Your task to perform on an android device: allow notifications from all sites in the chrome app Image 0: 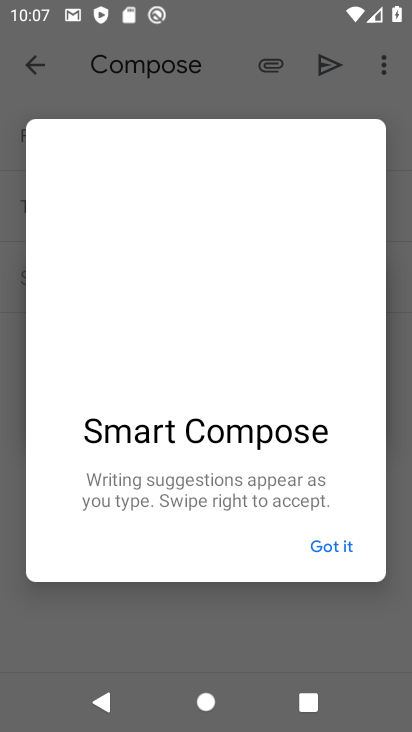
Step 0: press back button
Your task to perform on an android device: allow notifications from all sites in the chrome app Image 1: 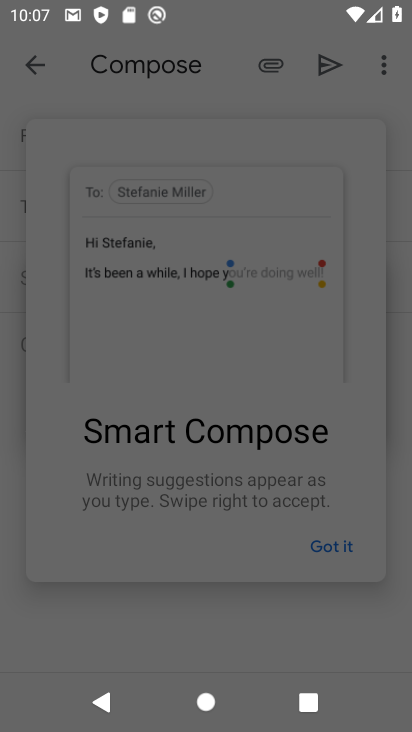
Step 1: press back button
Your task to perform on an android device: allow notifications from all sites in the chrome app Image 2: 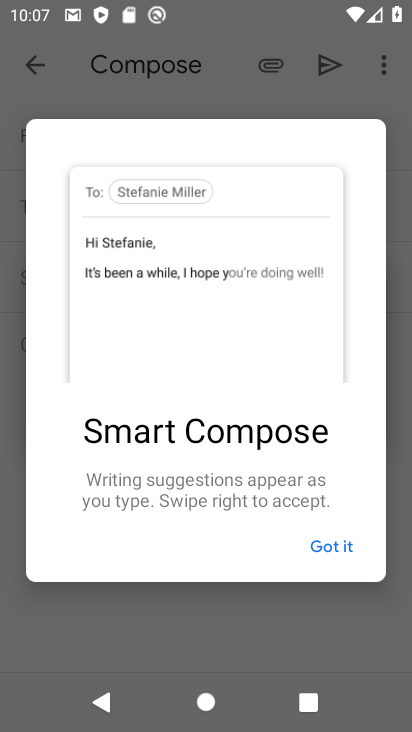
Step 2: press home button
Your task to perform on an android device: allow notifications from all sites in the chrome app Image 3: 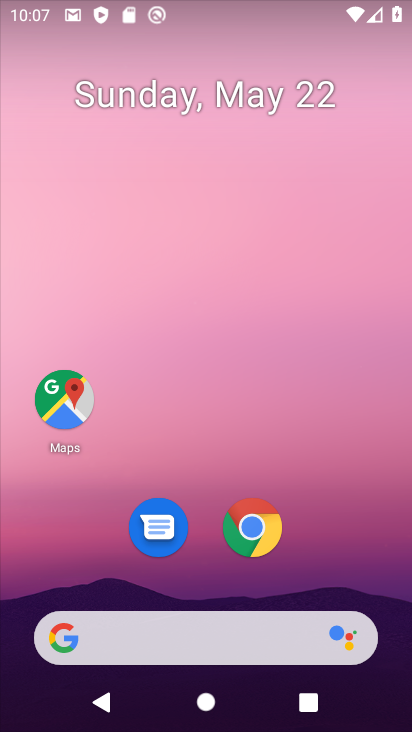
Step 3: drag from (345, 550) to (227, 47)
Your task to perform on an android device: allow notifications from all sites in the chrome app Image 4: 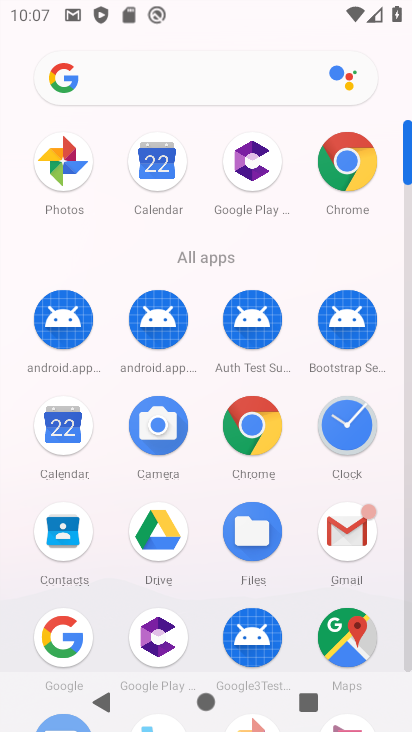
Step 4: drag from (13, 587) to (23, 281)
Your task to perform on an android device: allow notifications from all sites in the chrome app Image 5: 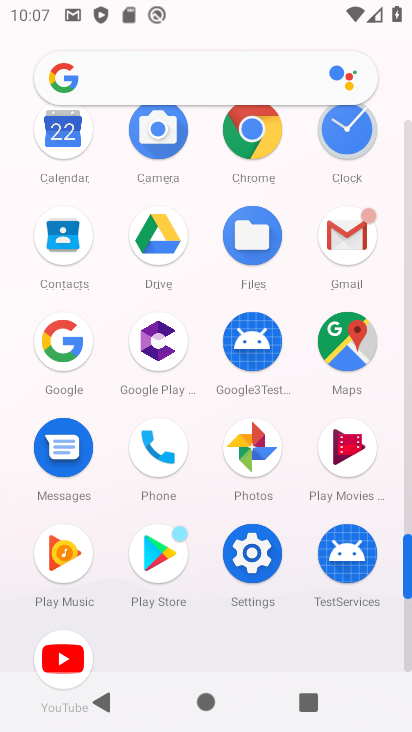
Step 5: click (251, 550)
Your task to perform on an android device: allow notifications from all sites in the chrome app Image 6: 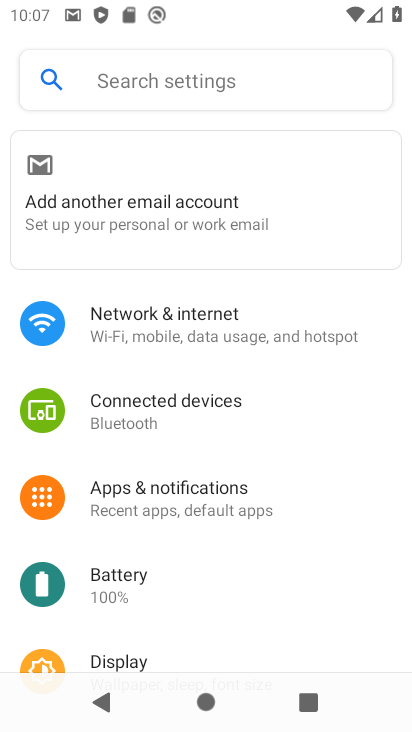
Step 6: click (133, 495)
Your task to perform on an android device: allow notifications from all sites in the chrome app Image 7: 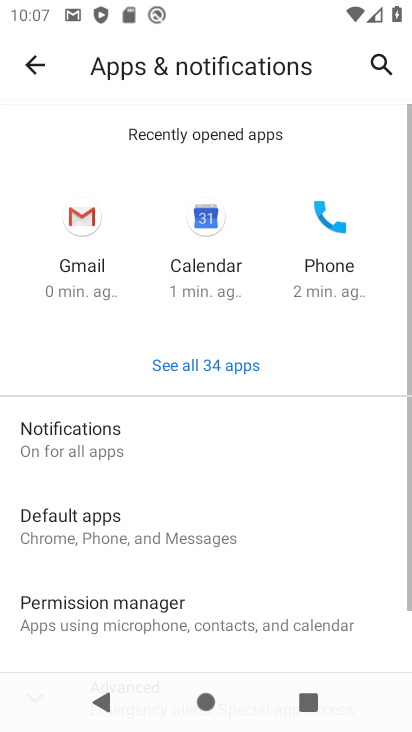
Step 7: click (126, 454)
Your task to perform on an android device: allow notifications from all sites in the chrome app Image 8: 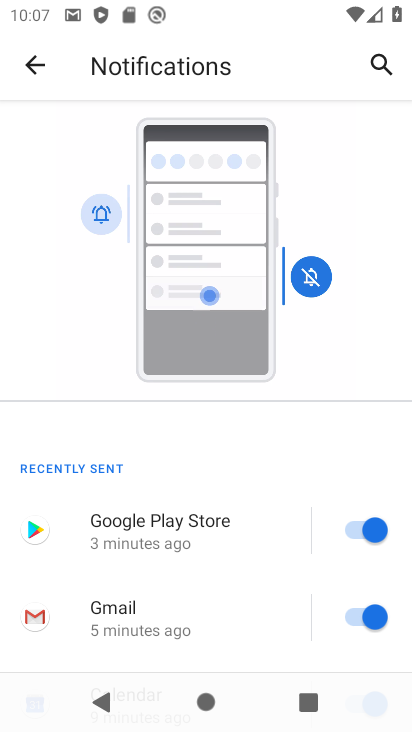
Step 8: drag from (234, 591) to (232, 135)
Your task to perform on an android device: allow notifications from all sites in the chrome app Image 9: 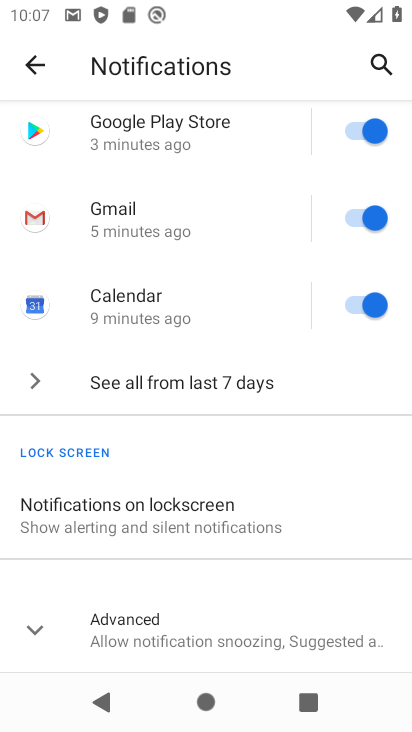
Step 9: click (33, 621)
Your task to perform on an android device: allow notifications from all sites in the chrome app Image 10: 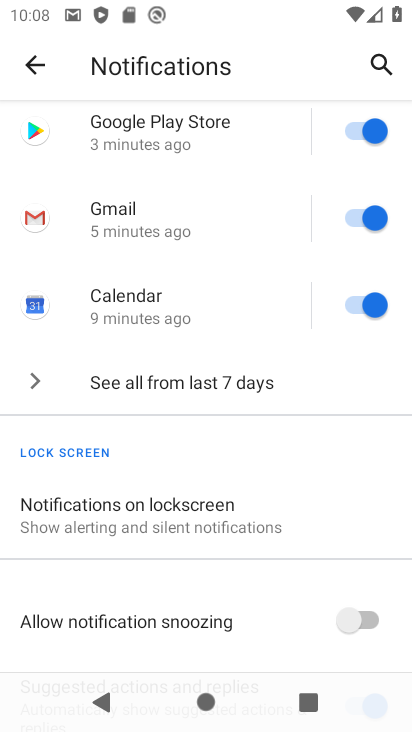
Step 10: click (173, 510)
Your task to perform on an android device: allow notifications from all sites in the chrome app Image 11: 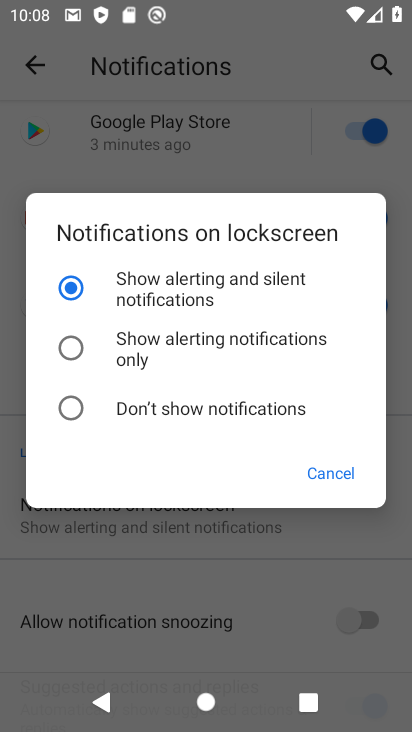
Step 11: click (118, 291)
Your task to perform on an android device: allow notifications from all sites in the chrome app Image 12: 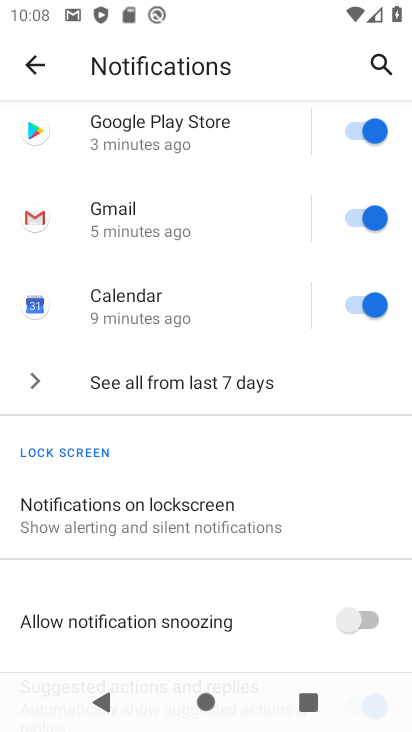
Step 12: drag from (132, 596) to (185, 158)
Your task to perform on an android device: allow notifications from all sites in the chrome app Image 13: 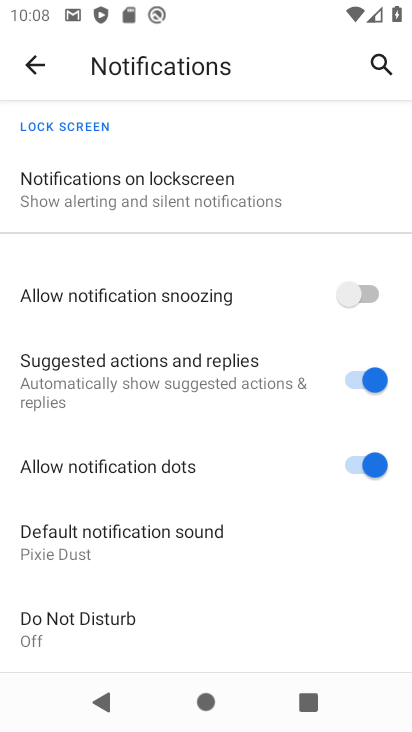
Step 13: drag from (190, 576) to (218, 167)
Your task to perform on an android device: allow notifications from all sites in the chrome app Image 14: 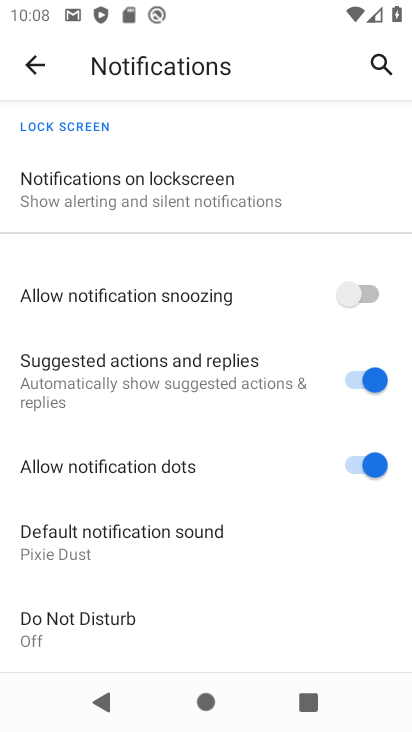
Step 14: click (214, 187)
Your task to perform on an android device: allow notifications from all sites in the chrome app Image 15: 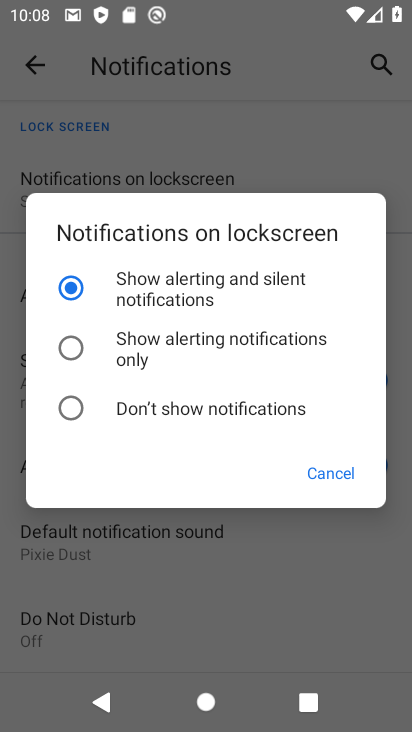
Step 15: click (190, 269)
Your task to perform on an android device: allow notifications from all sites in the chrome app Image 16: 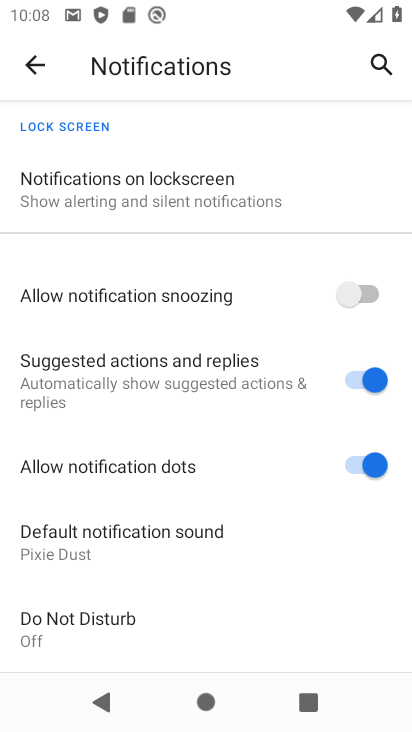
Step 16: task complete